Your task to perform on an android device: Open settings on Google Maps Image 0: 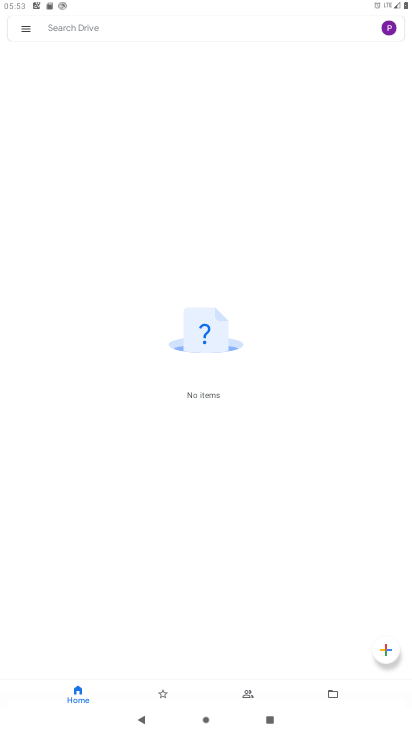
Step 0: press home button
Your task to perform on an android device: Open settings on Google Maps Image 1: 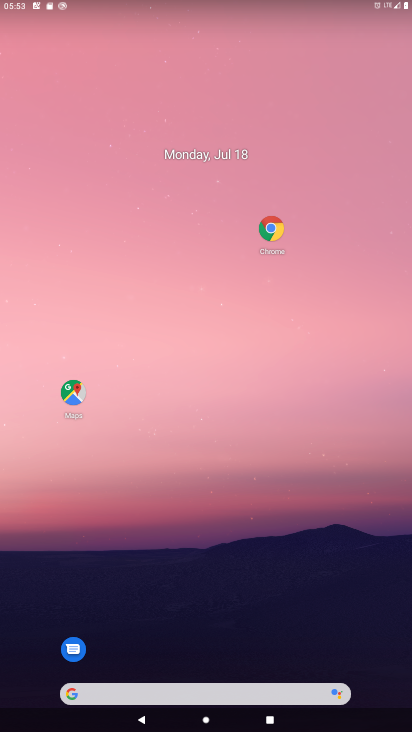
Step 1: click (81, 391)
Your task to perform on an android device: Open settings on Google Maps Image 2: 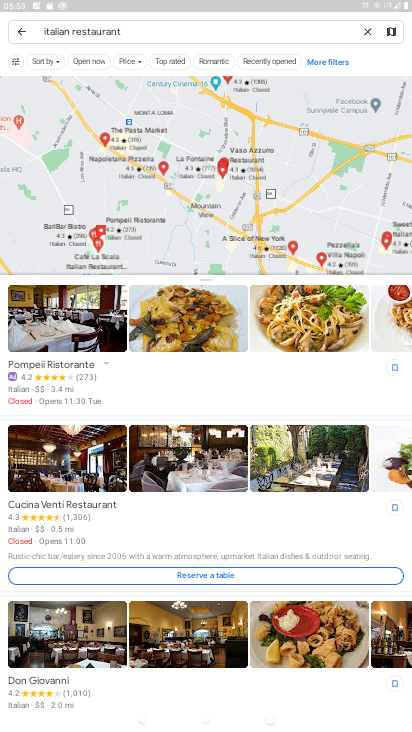
Step 2: click (24, 34)
Your task to perform on an android device: Open settings on Google Maps Image 3: 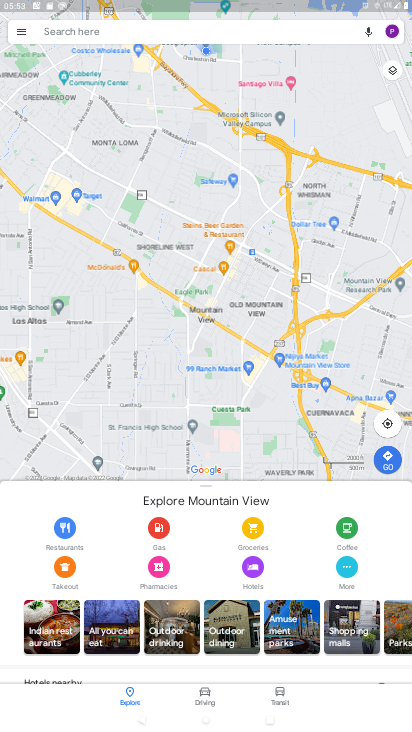
Step 3: click (24, 34)
Your task to perform on an android device: Open settings on Google Maps Image 4: 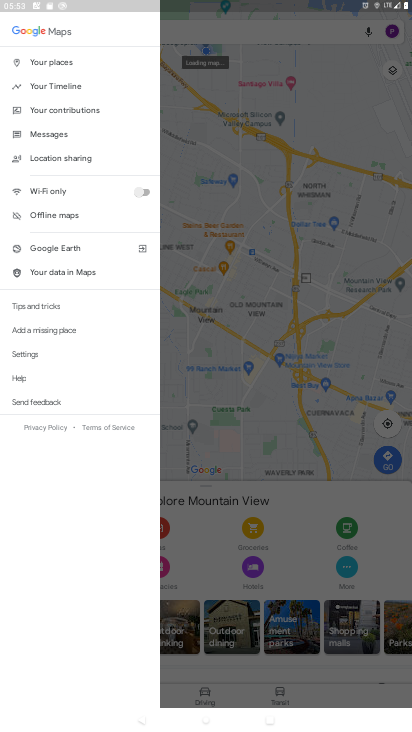
Step 4: click (61, 363)
Your task to perform on an android device: Open settings on Google Maps Image 5: 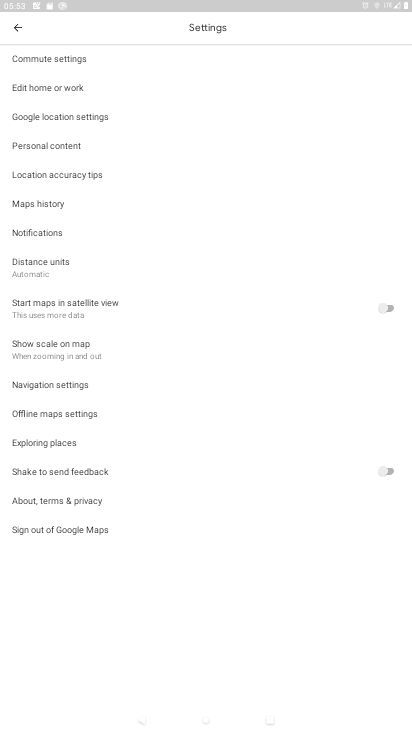
Step 5: task complete